Your task to perform on an android device: open a bookmark in the chrome app Image 0: 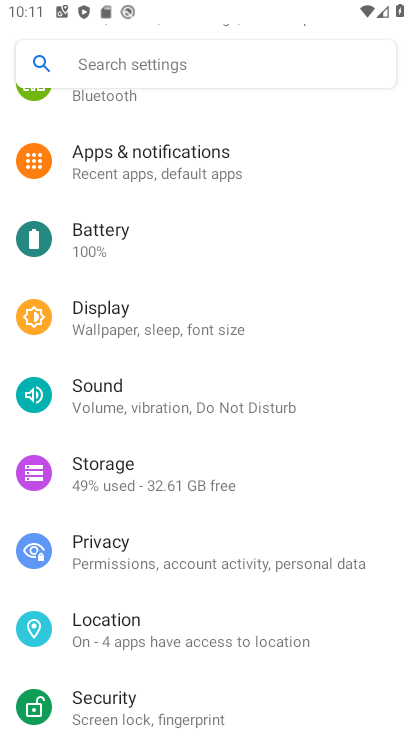
Step 0: press home button
Your task to perform on an android device: open a bookmark in the chrome app Image 1: 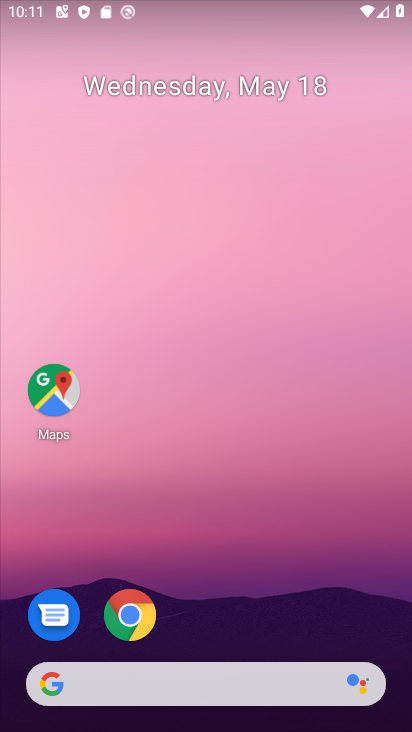
Step 1: click (135, 615)
Your task to perform on an android device: open a bookmark in the chrome app Image 2: 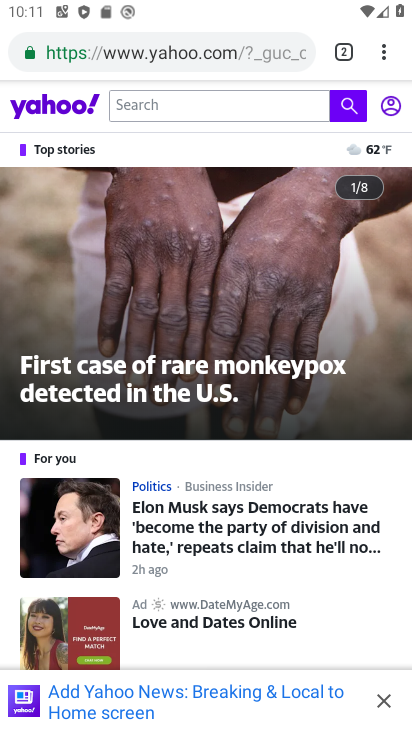
Step 2: click (378, 50)
Your task to perform on an android device: open a bookmark in the chrome app Image 3: 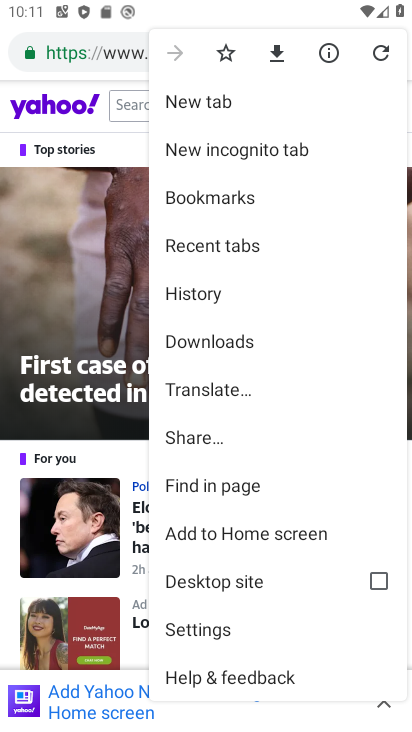
Step 3: click (233, 210)
Your task to perform on an android device: open a bookmark in the chrome app Image 4: 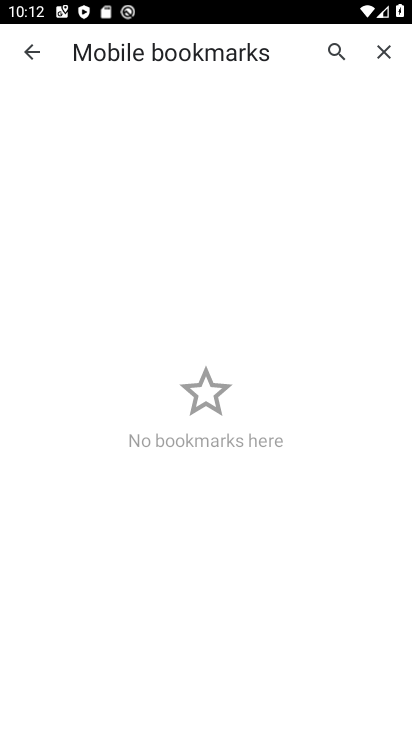
Step 4: task complete